Your task to perform on an android device: Open eBay Image 0: 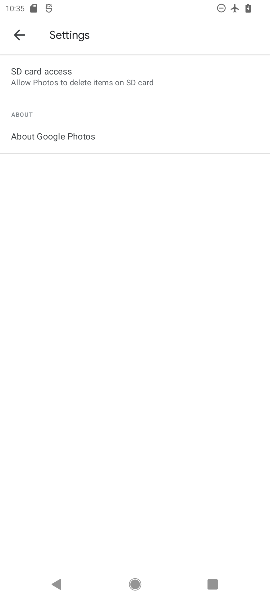
Step 0: press home button
Your task to perform on an android device: Open eBay Image 1: 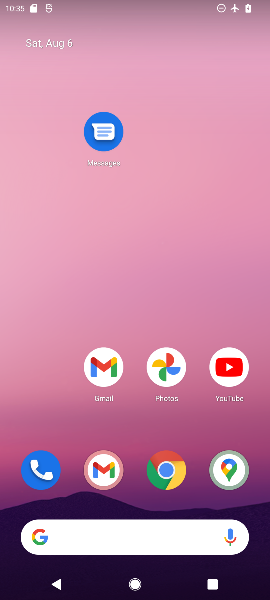
Step 1: drag from (146, 521) to (137, 146)
Your task to perform on an android device: Open eBay Image 2: 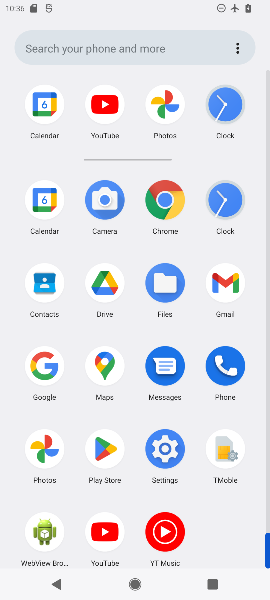
Step 2: click (179, 200)
Your task to perform on an android device: Open eBay Image 3: 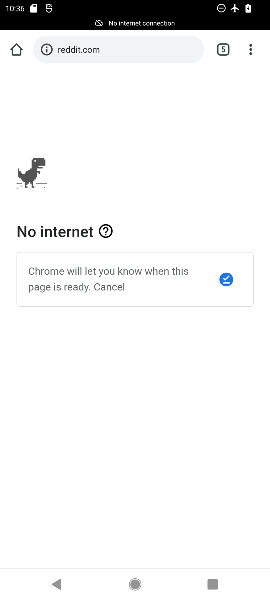
Step 3: click (158, 51)
Your task to perform on an android device: Open eBay Image 4: 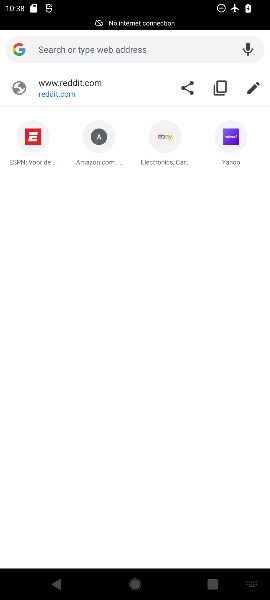
Step 4: type "ebay"
Your task to perform on an android device: Open eBay Image 5: 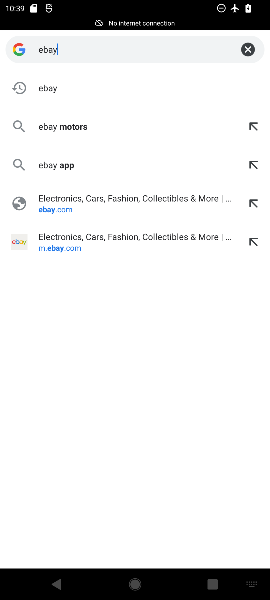
Step 5: click (86, 205)
Your task to perform on an android device: Open eBay Image 6: 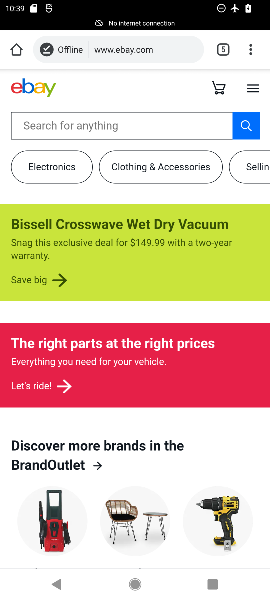
Step 6: task complete